Your task to perform on an android device: Open CNN.com Image 0: 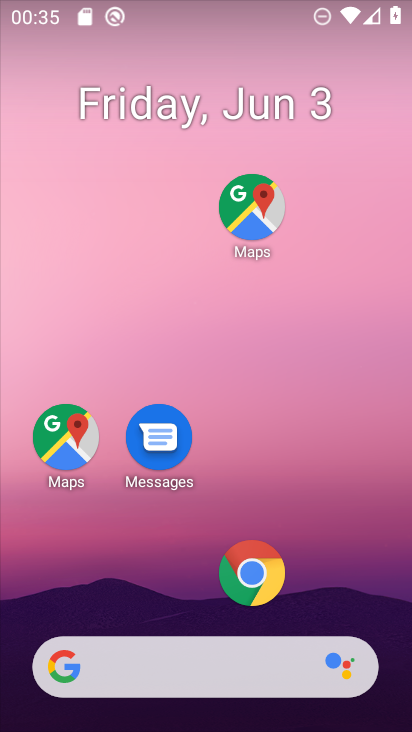
Step 0: click (235, 561)
Your task to perform on an android device: Open CNN.com Image 1: 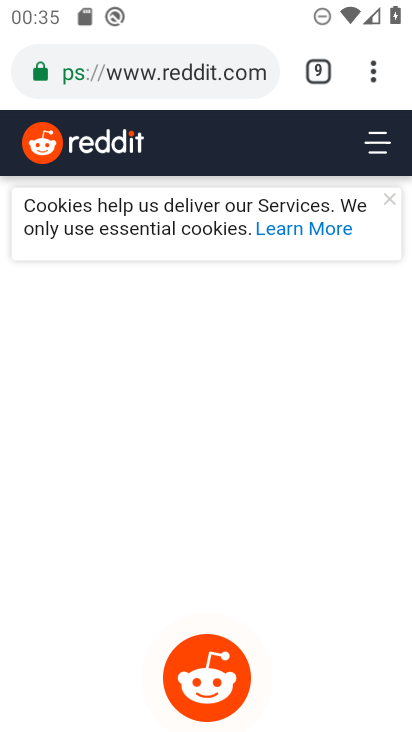
Step 1: click (311, 70)
Your task to perform on an android device: Open CNN.com Image 2: 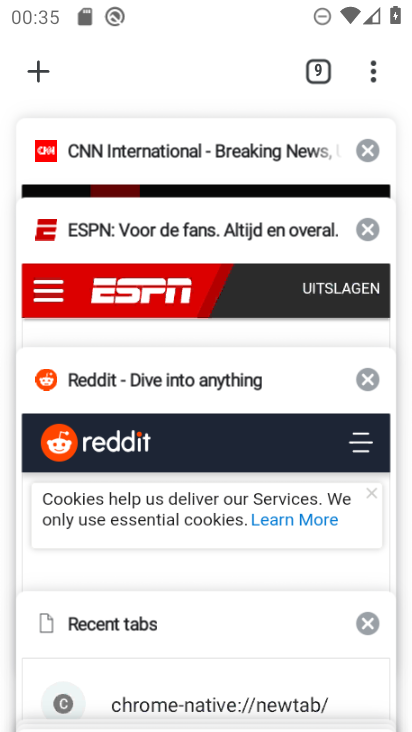
Step 2: click (178, 156)
Your task to perform on an android device: Open CNN.com Image 3: 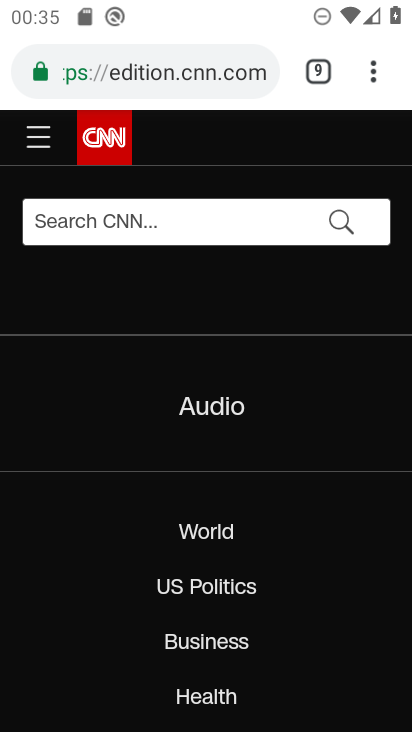
Step 3: task complete